Your task to perform on an android device: turn off translation in the chrome app Image 0: 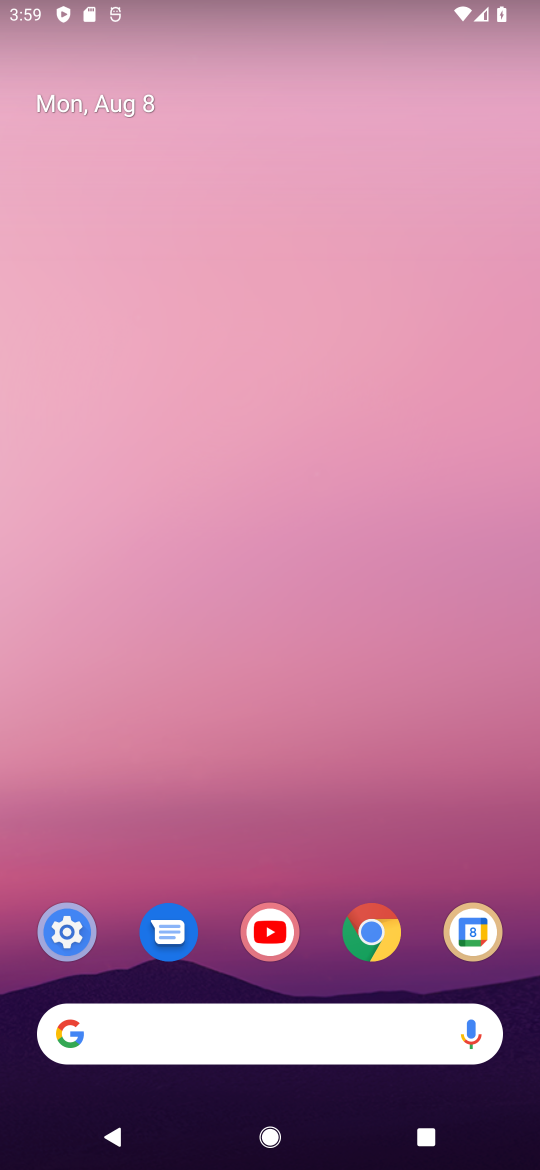
Step 0: click (355, 937)
Your task to perform on an android device: turn off translation in the chrome app Image 1: 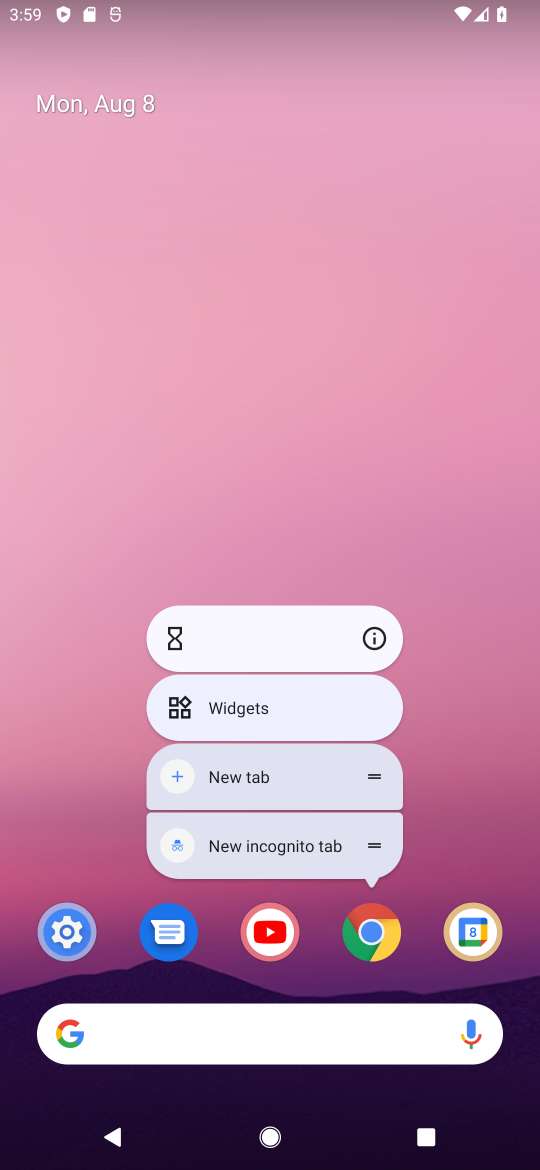
Step 1: click (355, 937)
Your task to perform on an android device: turn off translation in the chrome app Image 2: 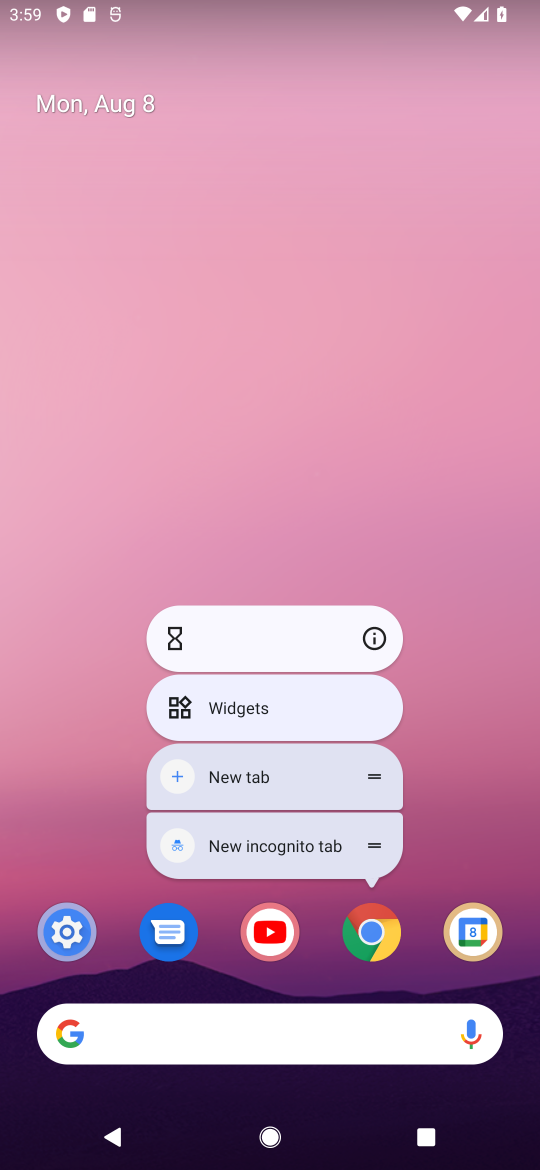
Step 2: click (355, 937)
Your task to perform on an android device: turn off translation in the chrome app Image 3: 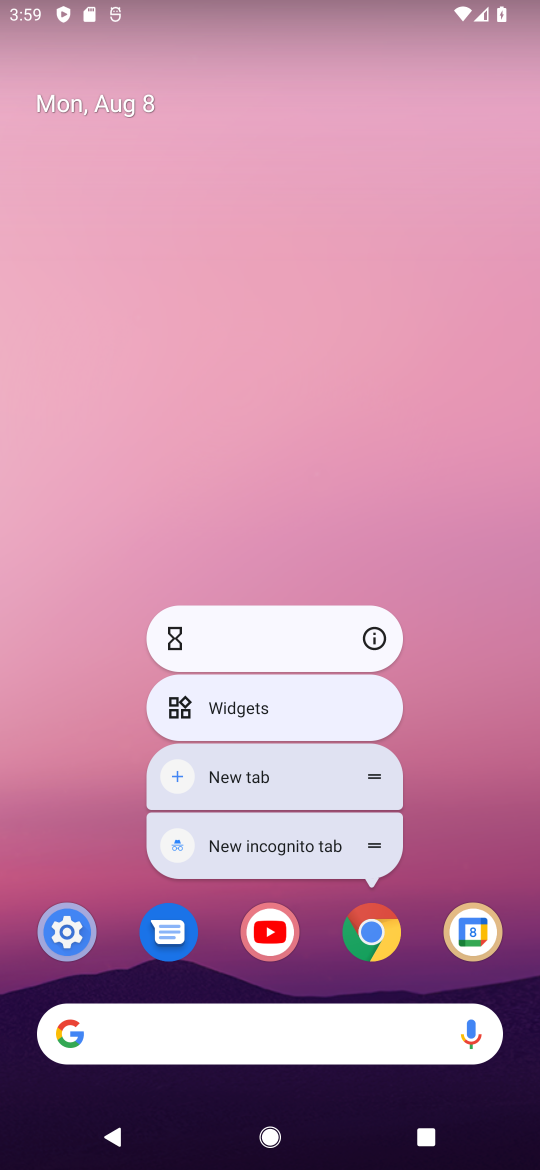
Step 3: click (355, 937)
Your task to perform on an android device: turn off translation in the chrome app Image 4: 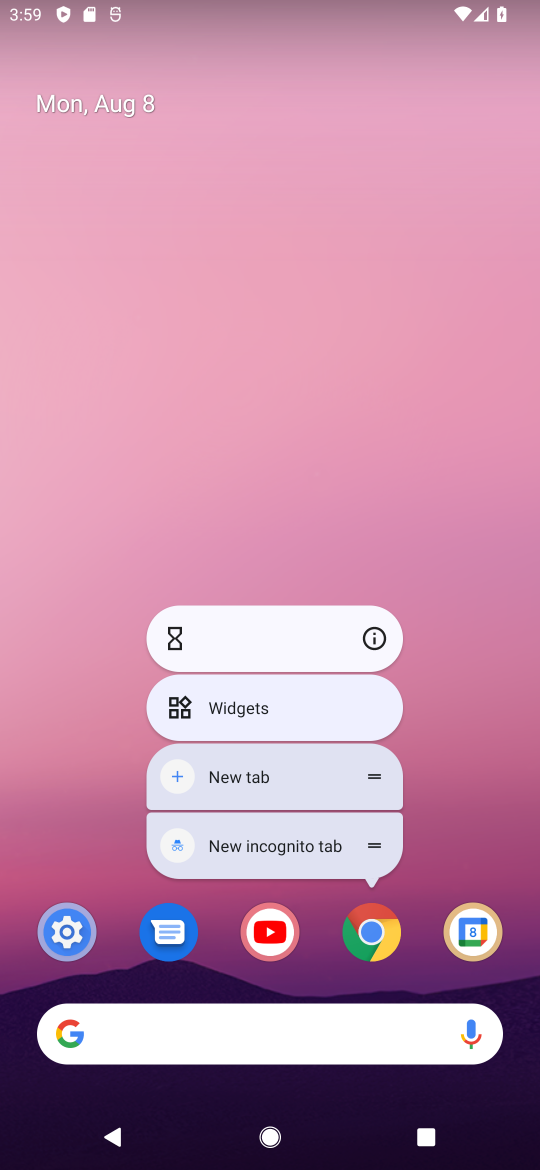
Step 4: click (355, 937)
Your task to perform on an android device: turn off translation in the chrome app Image 5: 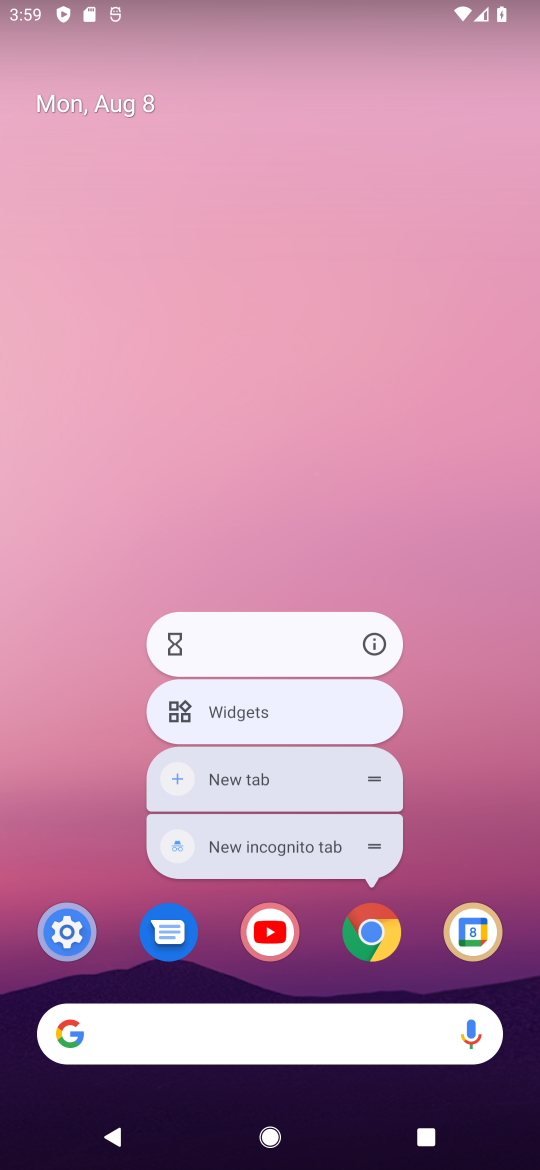
Step 5: click (355, 937)
Your task to perform on an android device: turn off translation in the chrome app Image 6: 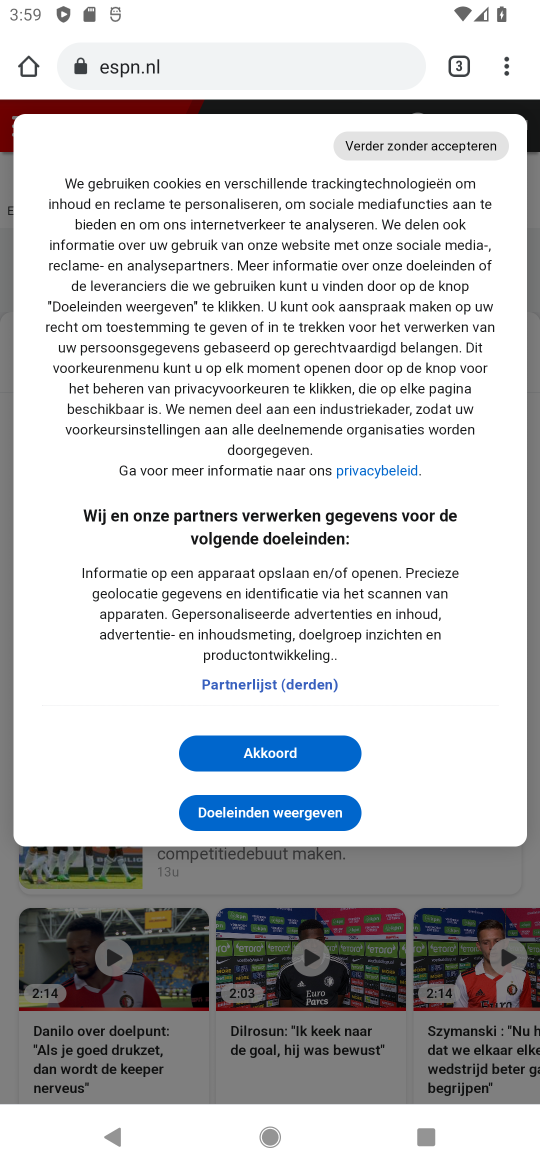
Step 6: click (513, 56)
Your task to perform on an android device: turn off translation in the chrome app Image 7: 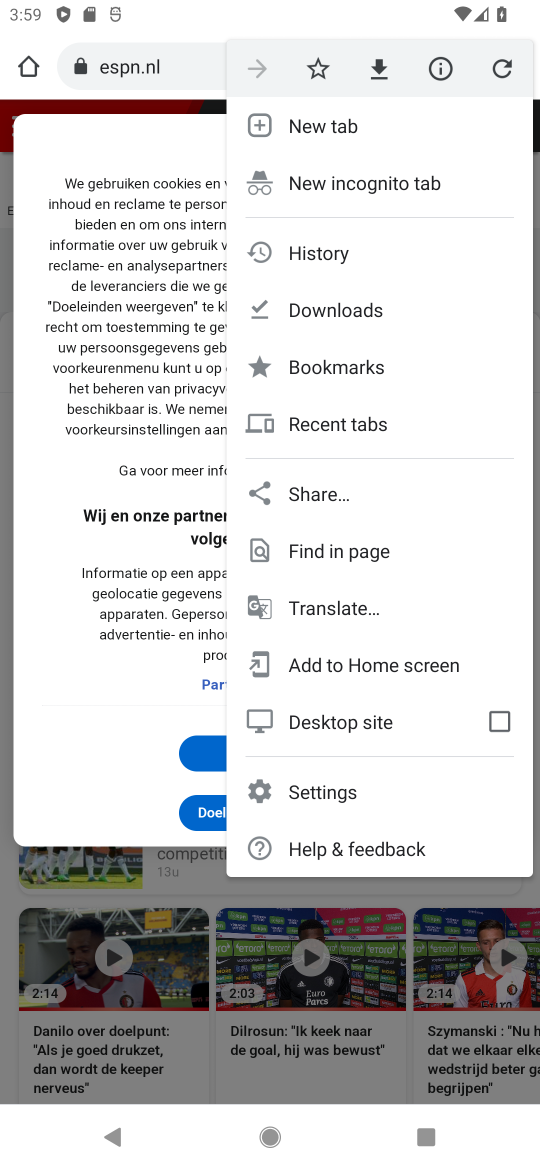
Step 7: click (317, 779)
Your task to perform on an android device: turn off translation in the chrome app Image 8: 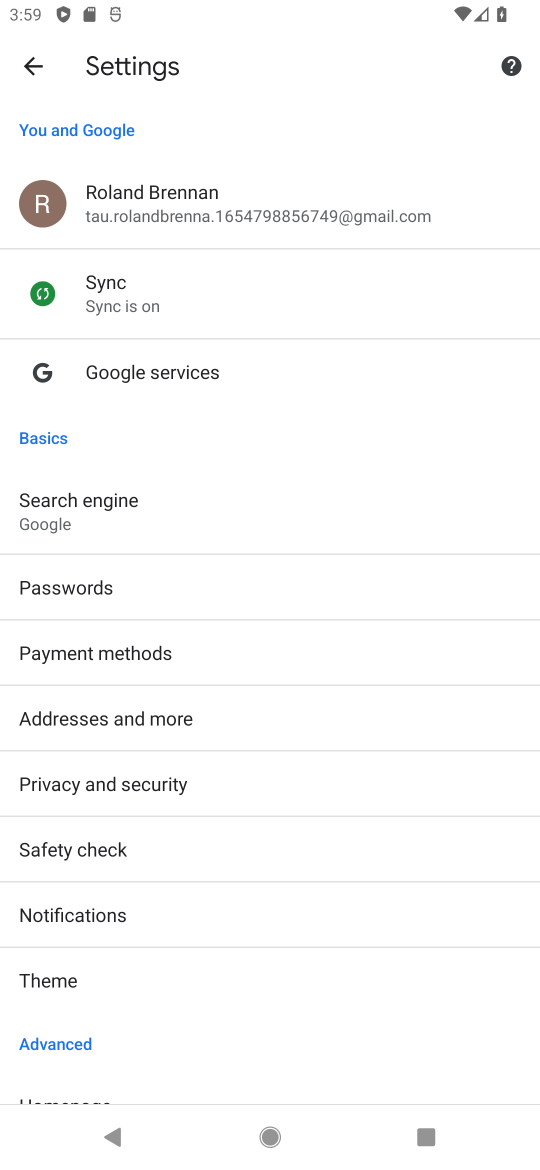
Step 8: drag from (315, 969) to (279, 43)
Your task to perform on an android device: turn off translation in the chrome app Image 9: 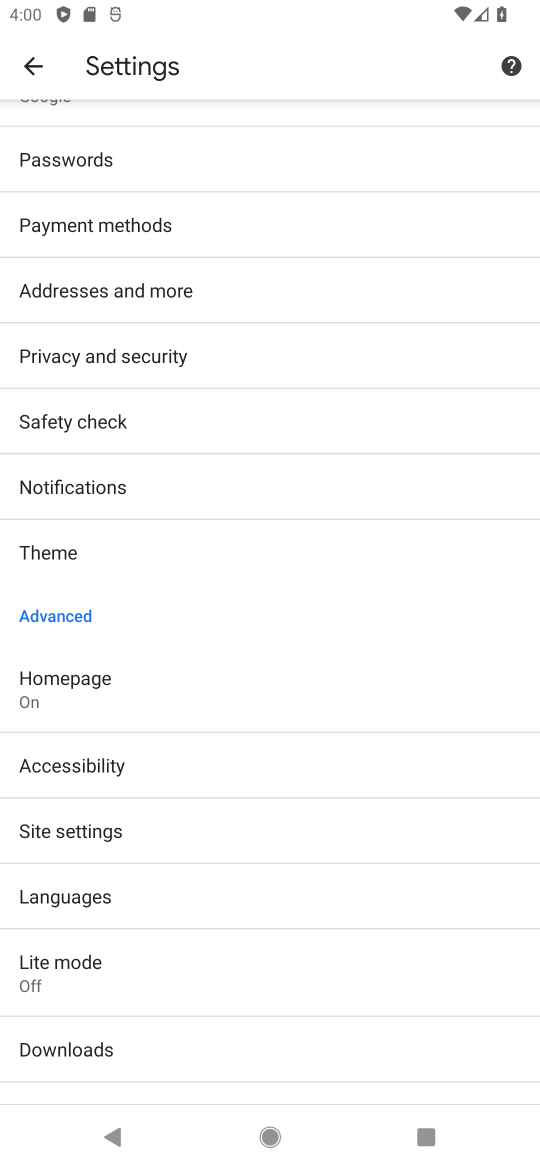
Step 9: click (161, 907)
Your task to perform on an android device: turn off translation in the chrome app Image 10: 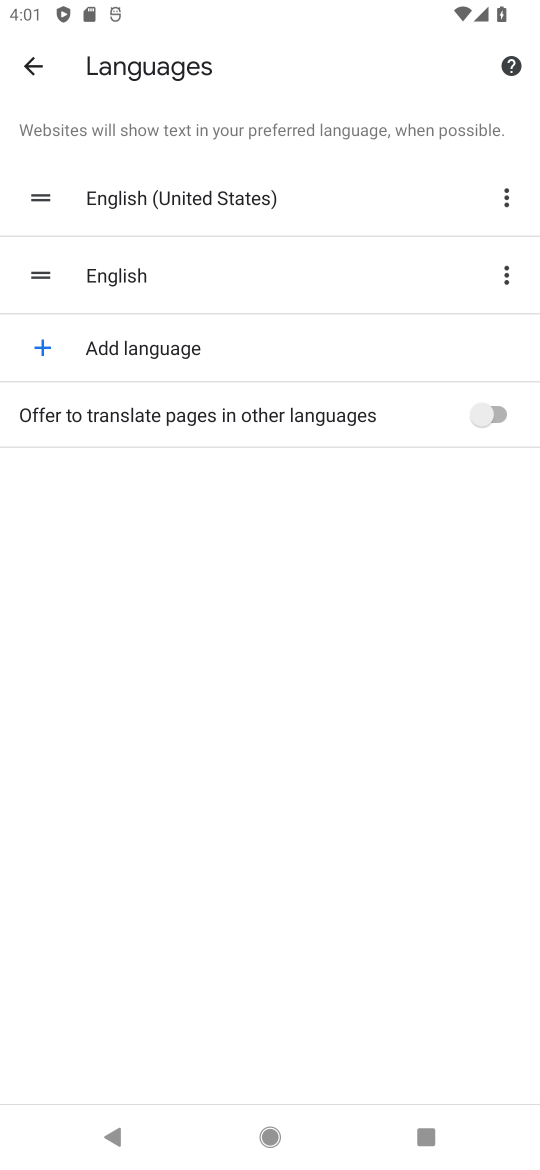
Step 10: task complete